Your task to perform on an android device: turn pop-ups off in chrome Image 0: 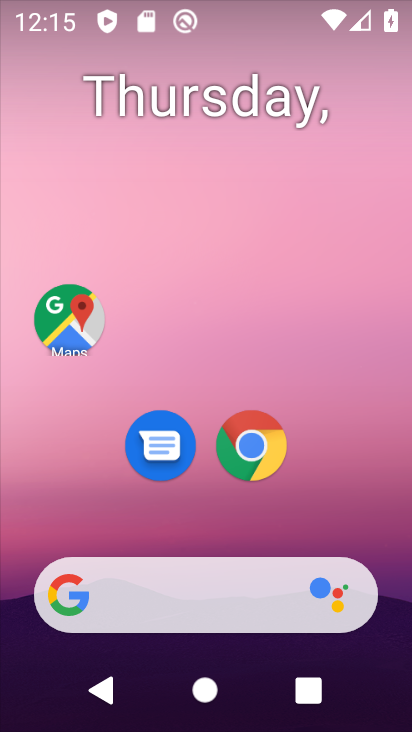
Step 0: drag from (360, 511) to (373, 116)
Your task to perform on an android device: turn pop-ups off in chrome Image 1: 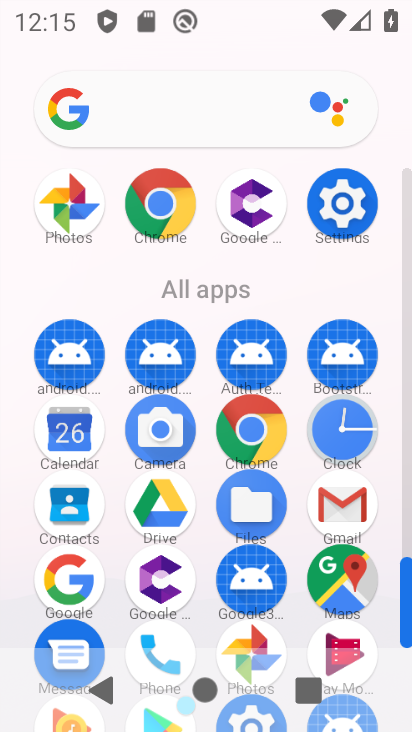
Step 1: click (281, 447)
Your task to perform on an android device: turn pop-ups off in chrome Image 2: 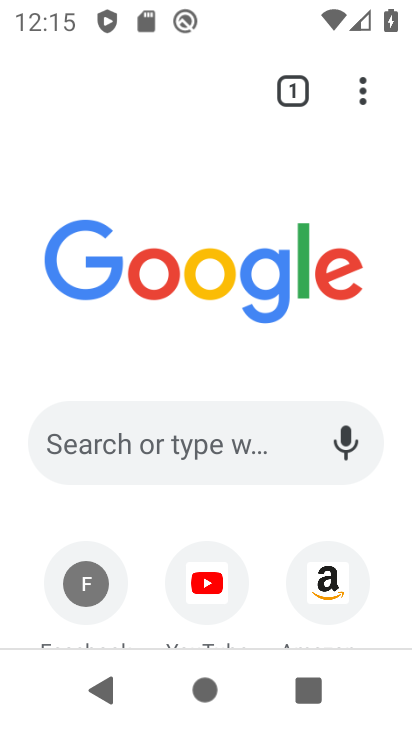
Step 2: drag from (361, 102) to (216, 490)
Your task to perform on an android device: turn pop-ups off in chrome Image 3: 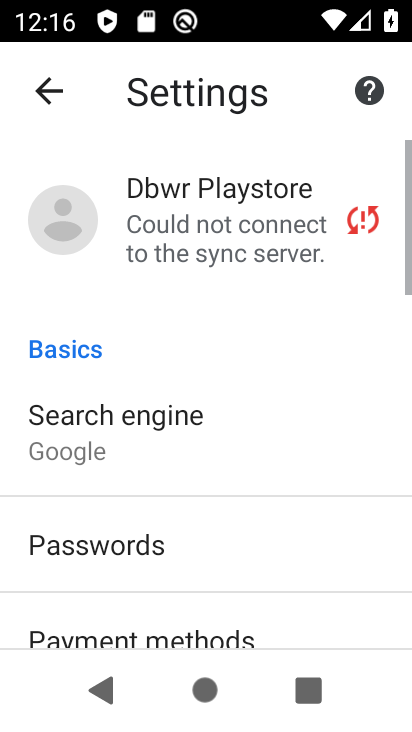
Step 3: drag from (273, 594) to (255, 229)
Your task to perform on an android device: turn pop-ups off in chrome Image 4: 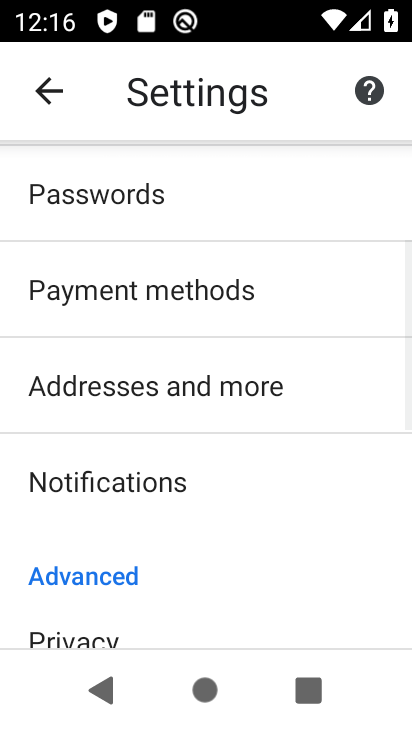
Step 4: drag from (252, 561) to (266, 232)
Your task to perform on an android device: turn pop-ups off in chrome Image 5: 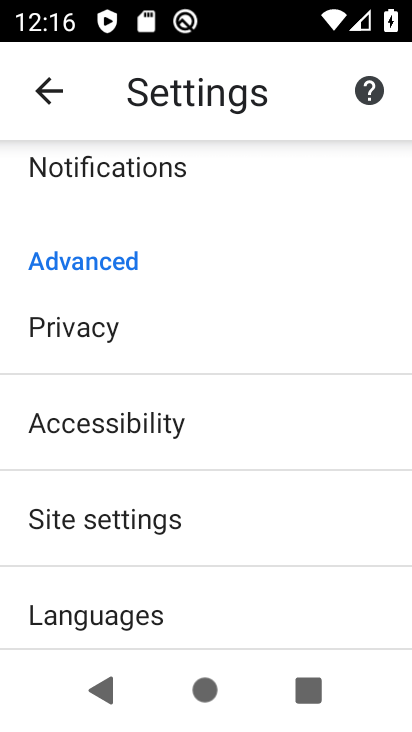
Step 5: drag from (249, 576) to (233, 323)
Your task to perform on an android device: turn pop-ups off in chrome Image 6: 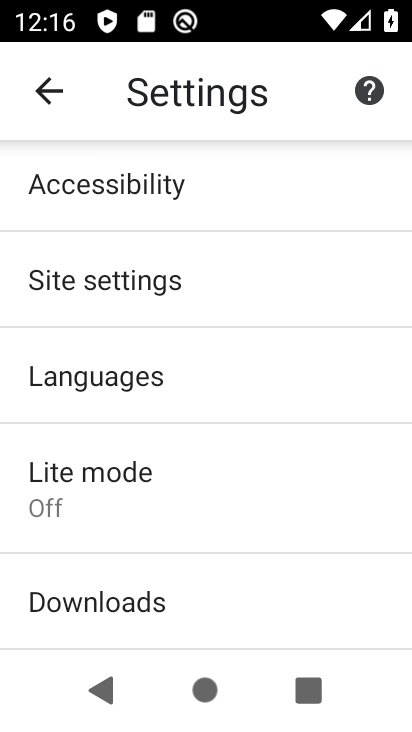
Step 6: click (173, 299)
Your task to perform on an android device: turn pop-ups off in chrome Image 7: 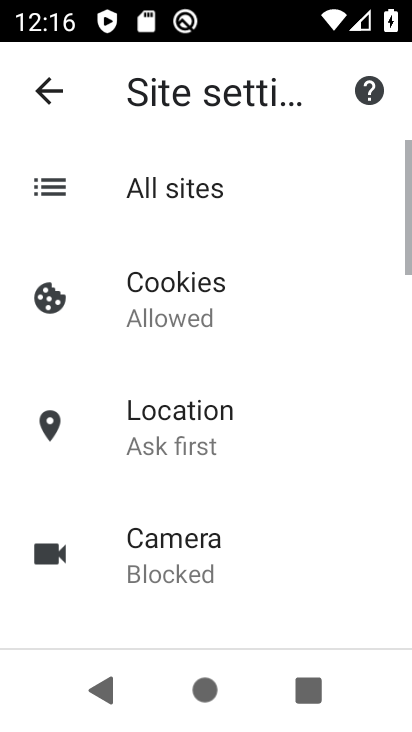
Step 7: drag from (246, 578) to (238, 232)
Your task to perform on an android device: turn pop-ups off in chrome Image 8: 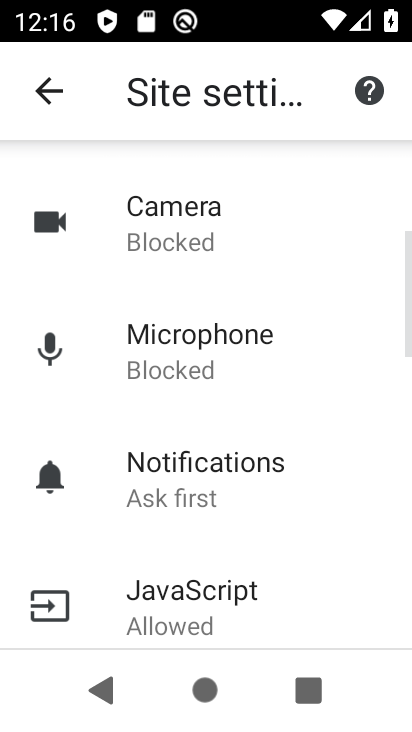
Step 8: drag from (290, 563) to (292, 316)
Your task to perform on an android device: turn pop-ups off in chrome Image 9: 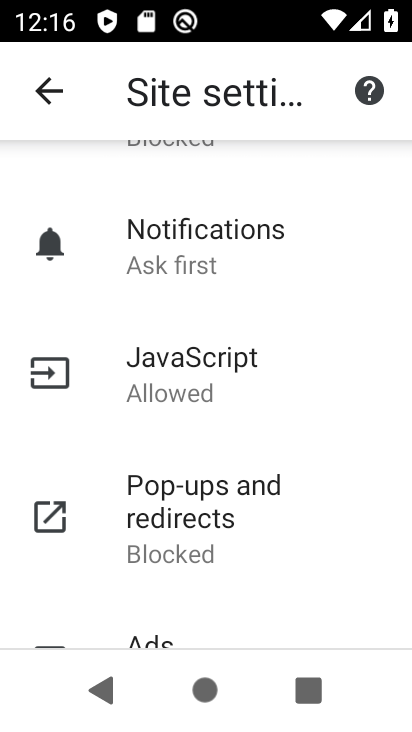
Step 9: click (285, 502)
Your task to perform on an android device: turn pop-ups off in chrome Image 10: 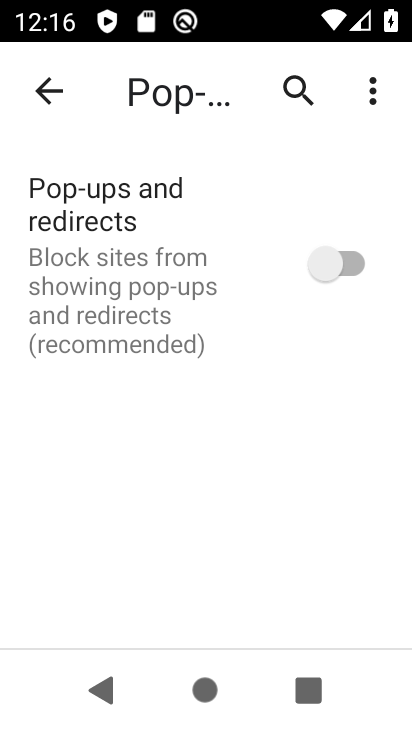
Step 10: task complete